Your task to perform on an android device: Set the phone to "Do not disturb". Image 0: 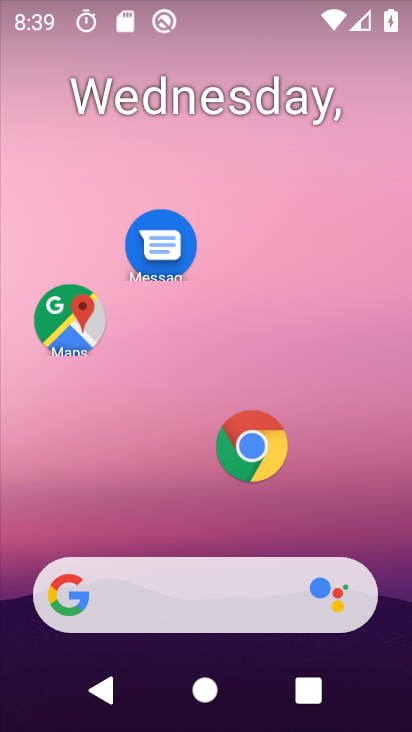
Step 0: drag from (194, 10) to (205, 633)
Your task to perform on an android device: Set the phone to "Do not disturb". Image 1: 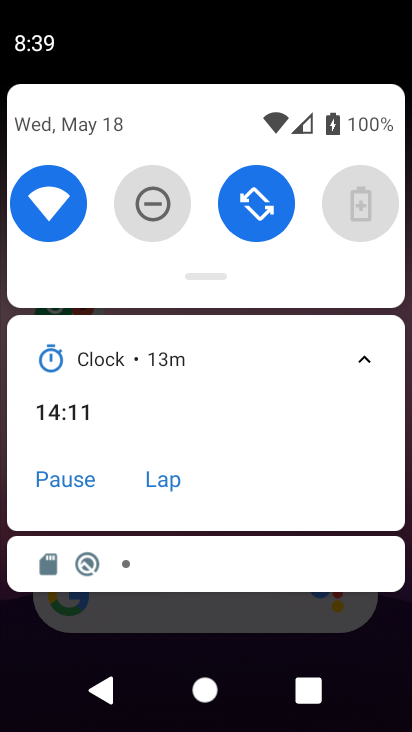
Step 1: click (155, 213)
Your task to perform on an android device: Set the phone to "Do not disturb". Image 2: 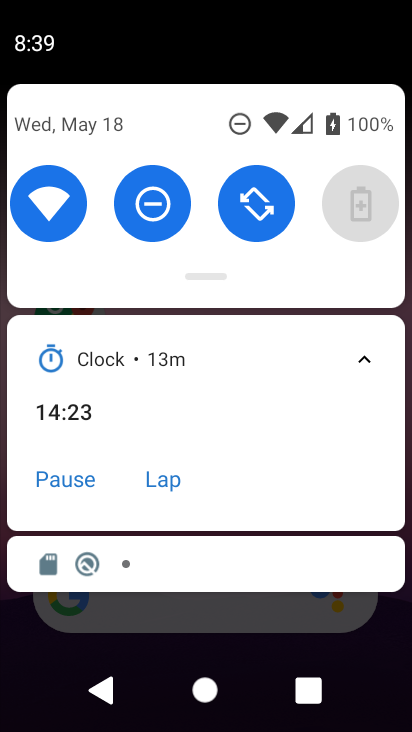
Step 2: task complete